Your task to perform on an android device: see creations saved in the google photos Image 0: 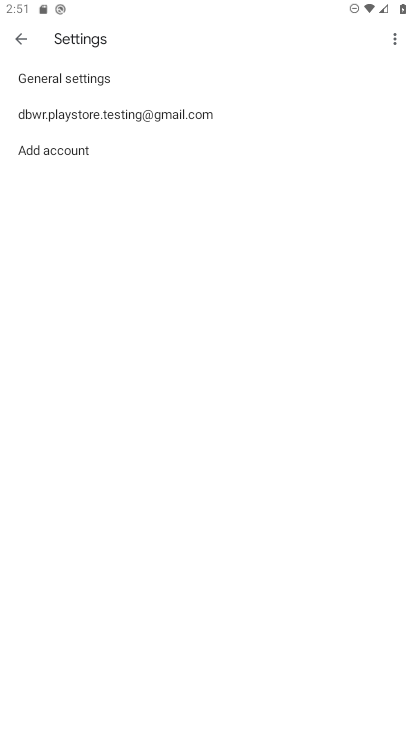
Step 0: press home button
Your task to perform on an android device: see creations saved in the google photos Image 1: 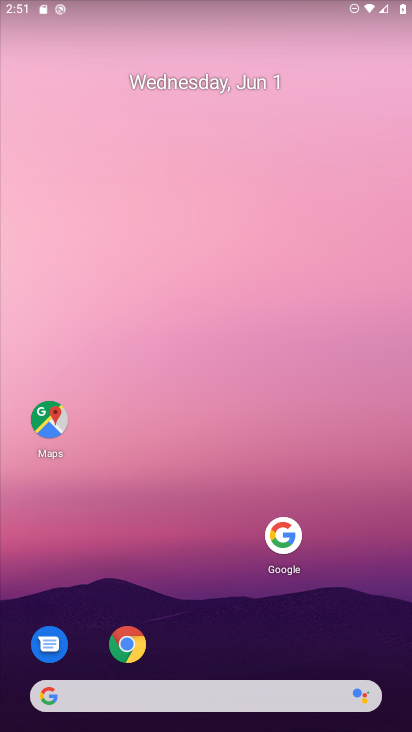
Step 1: drag from (174, 695) to (263, 315)
Your task to perform on an android device: see creations saved in the google photos Image 2: 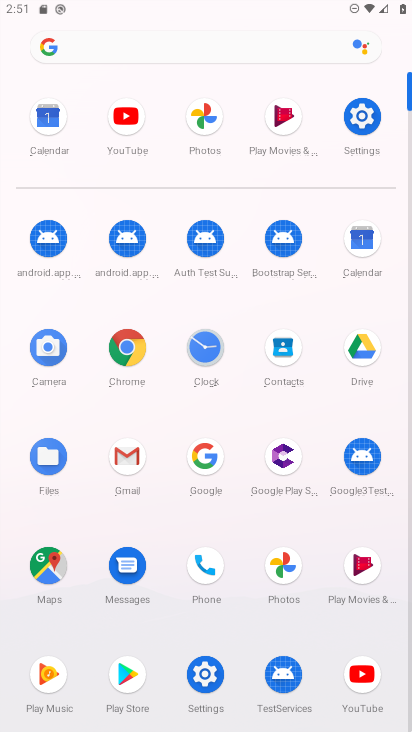
Step 2: click (280, 565)
Your task to perform on an android device: see creations saved in the google photos Image 3: 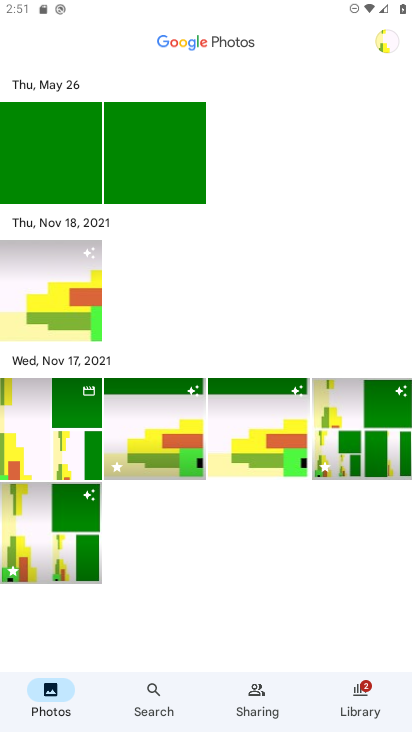
Step 3: click (145, 713)
Your task to perform on an android device: see creations saved in the google photos Image 4: 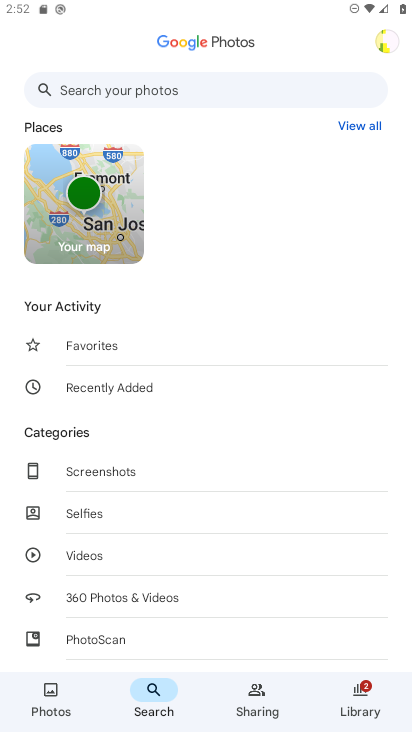
Step 4: drag from (157, 543) to (249, 294)
Your task to perform on an android device: see creations saved in the google photos Image 5: 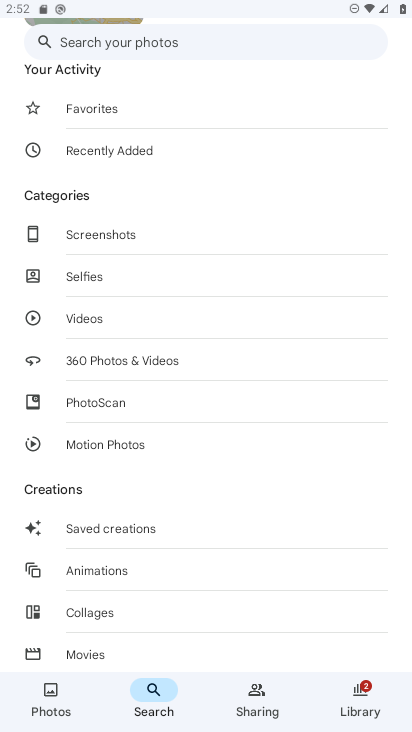
Step 5: click (120, 526)
Your task to perform on an android device: see creations saved in the google photos Image 6: 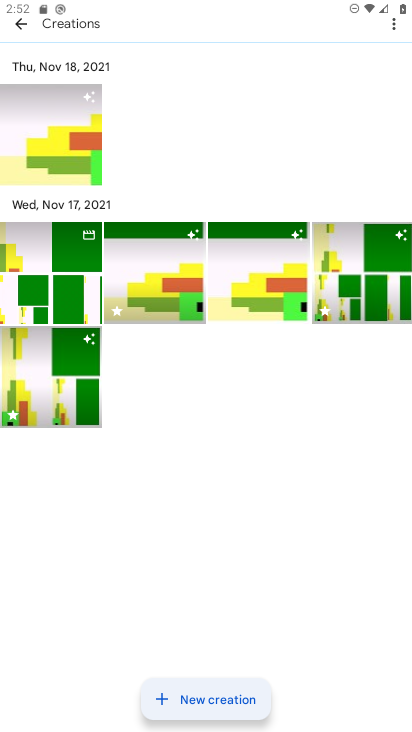
Step 6: task complete